Your task to perform on an android device: turn on translation in the chrome app Image 0: 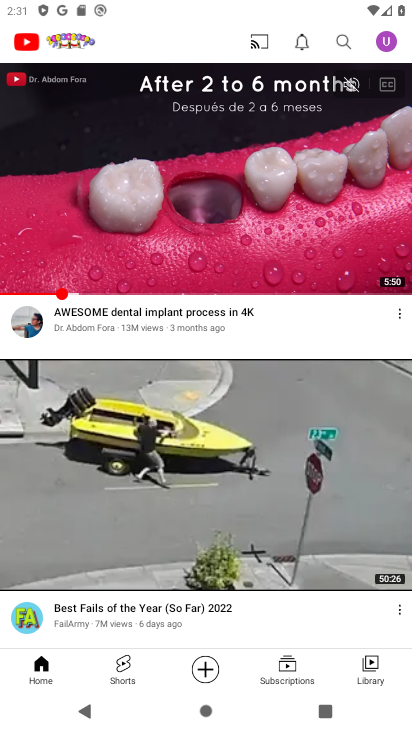
Step 0: press back button
Your task to perform on an android device: turn on translation in the chrome app Image 1: 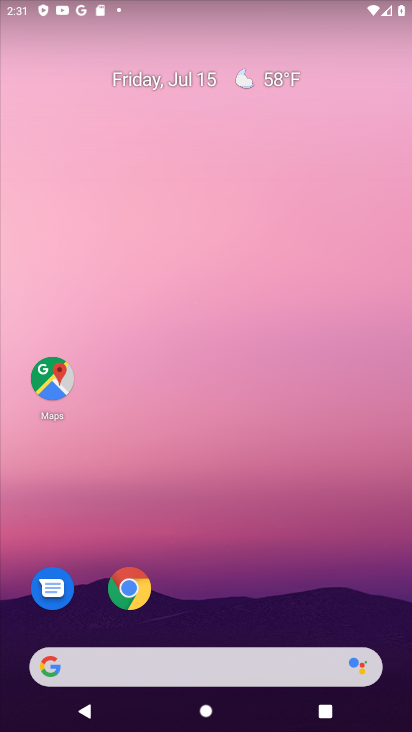
Step 1: click (133, 584)
Your task to perform on an android device: turn on translation in the chrome app Image 2: 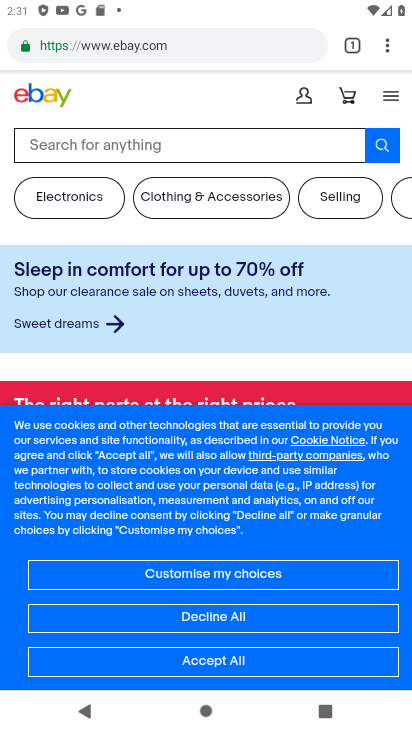
Step 2: click (390, 52)
Your task to perform on an android device: turn on translation in the chrome app Image 3: 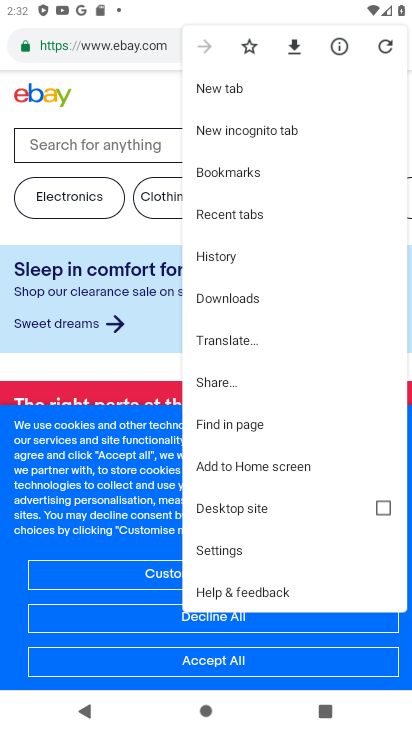
Step 3: click (202, 335)
Your task to perform on an android device: turn on translation in the chrome app Image 4: 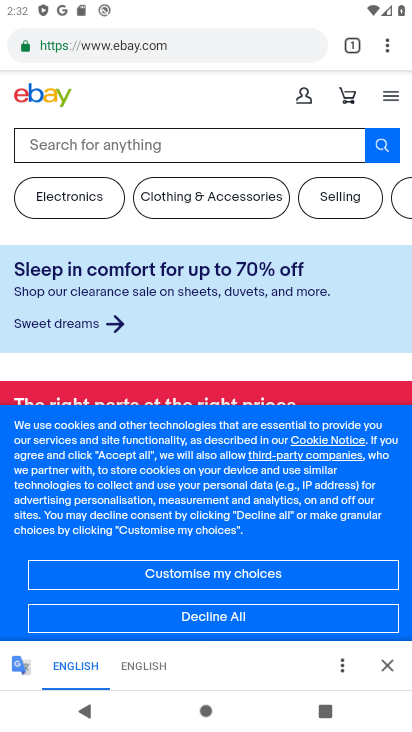
Step 4: task complete